Your task to perform on an android device: Open Yahoo.com Image 0: 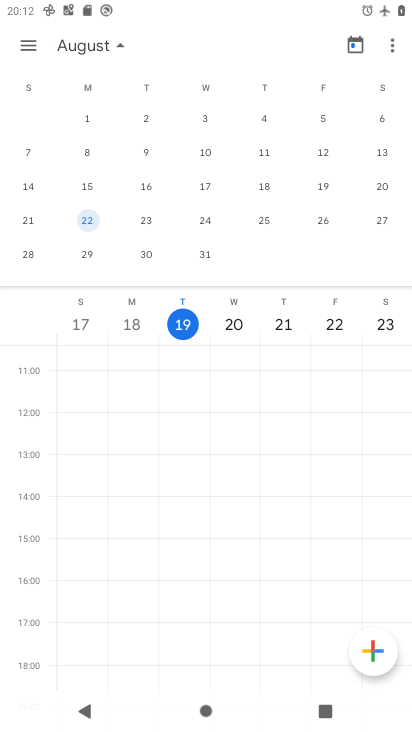
Step 0: click (201, 592)
Your task to perform on an android device: Open Yahoo.com Image 1: 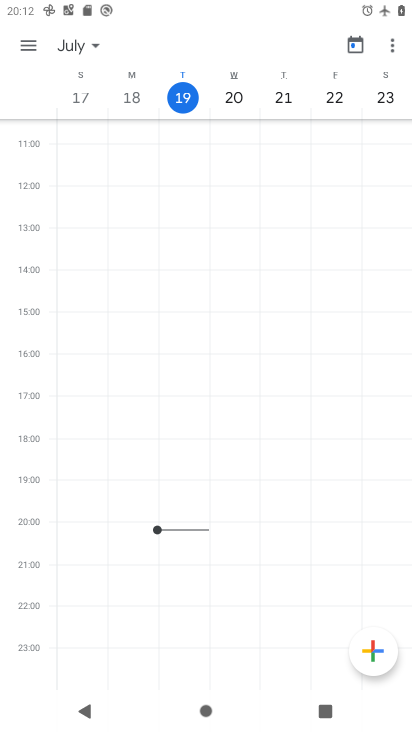
Step 1: press home button
Your task to perform on an android device: Open Yahoo.com Image 2: 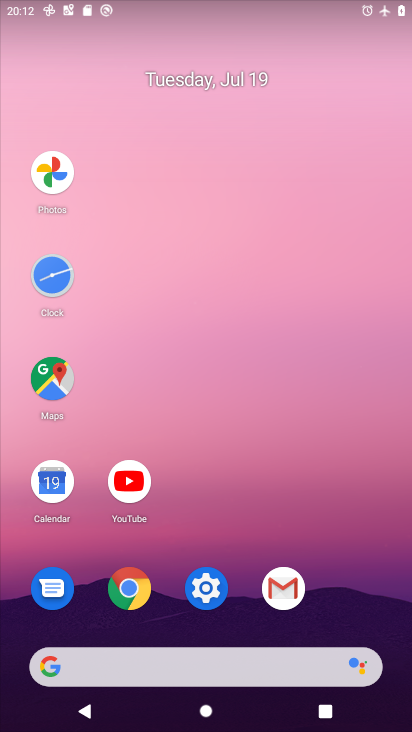
Step 2: click (124, 582)
Your task to perform on an android device: Open Yahoo.com Image 3: 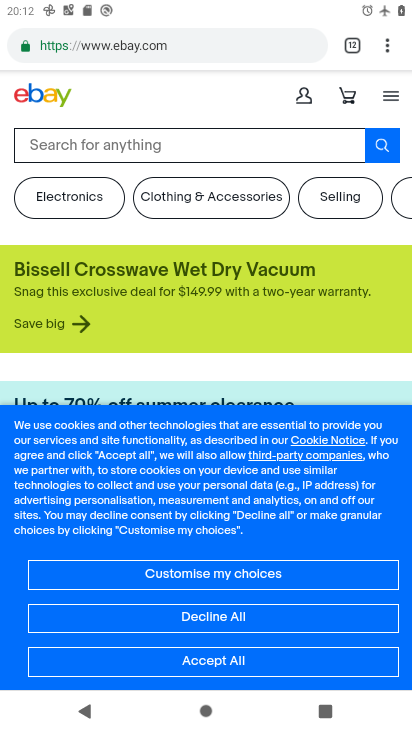
Step 3: click (392, 43)
Your task to perform on an android device: Open Yahoo.com Image 4: 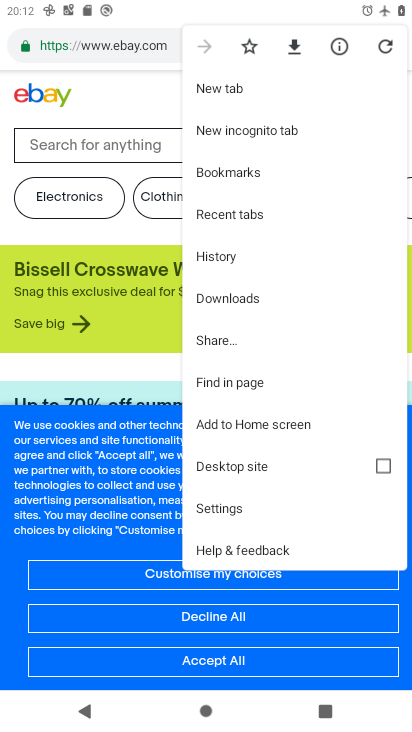
Step 4: click (236, 83)
Your task to perform on an android device: Open Yahoo.com Image 5: 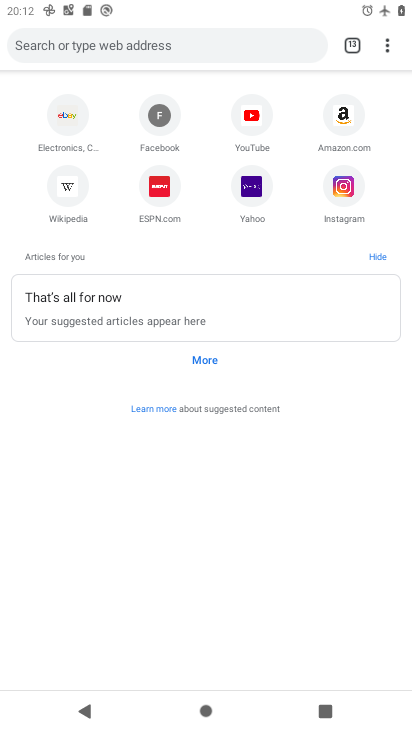
Step 5: click (258, 186)
Your task to perform on an android device: Open Yahoo.com Image 6: 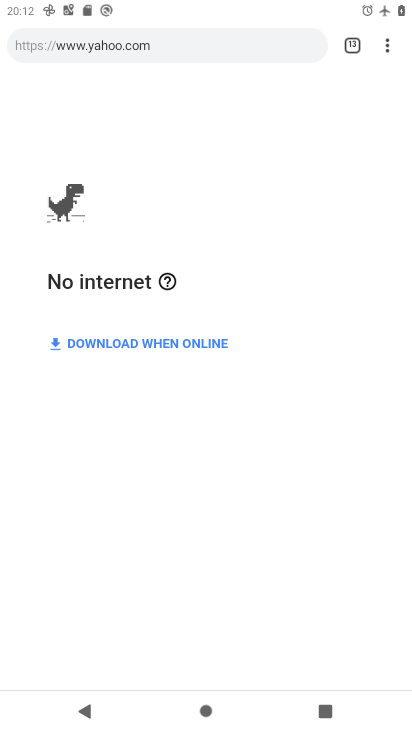
Step 6: task complete